Your task to perform on an android device: Search for sushi restaurants on Maps Image 0: 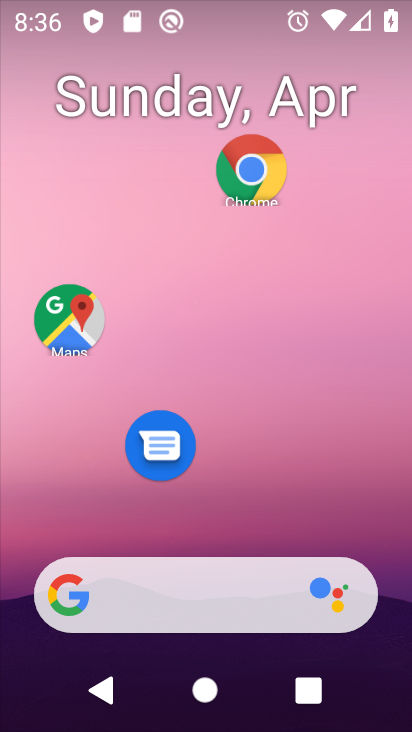
Step 0: click (75, 324)
Your task to perform on an android device: Search for sushi restaurants on Maps Image 1: 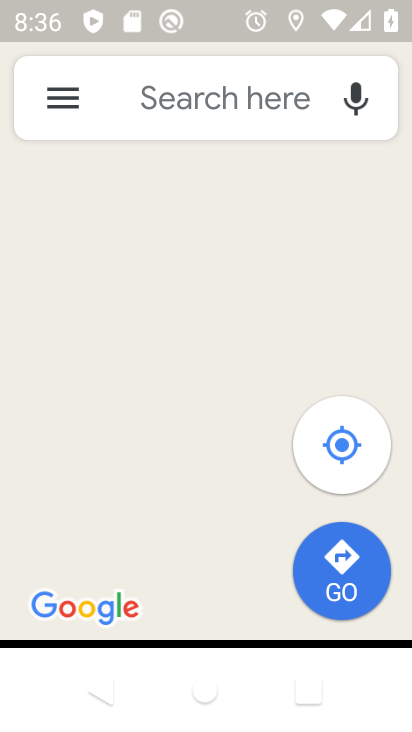
Step 1: click (167, 111)
Your task to perform on an android device: Search for sushi restaurants on Maps Image 2: 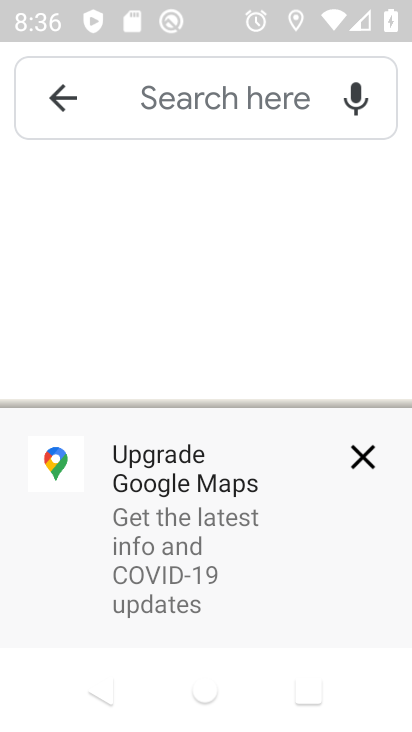
Step 2: click (167, 111)
Your task to perform on an android device: Search for sushi restaurants on Maps Image 3: 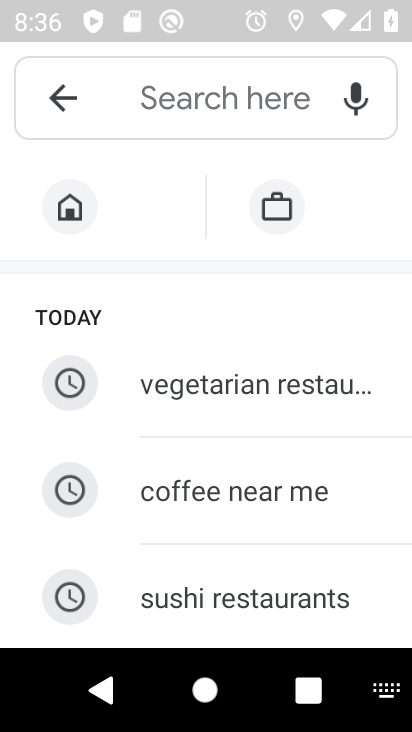
Step 3: click (255, 606)
Your task to perform on an android device: Search for sushi restaurants on Maps Image 4: 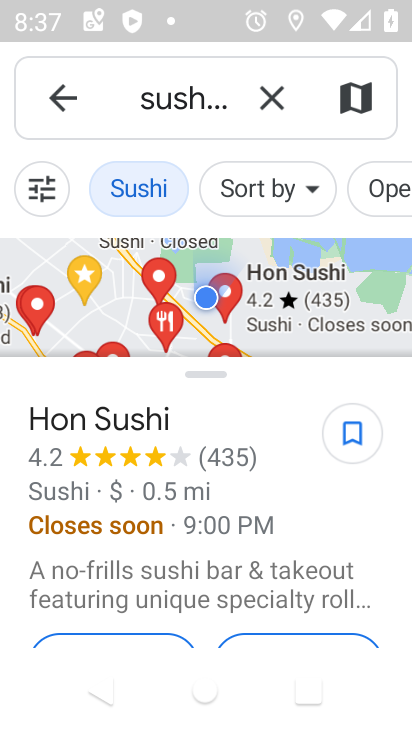
Step 4: task complete